Your task to perform on an android device: turn vacation reply on in the gmail app Image 0: 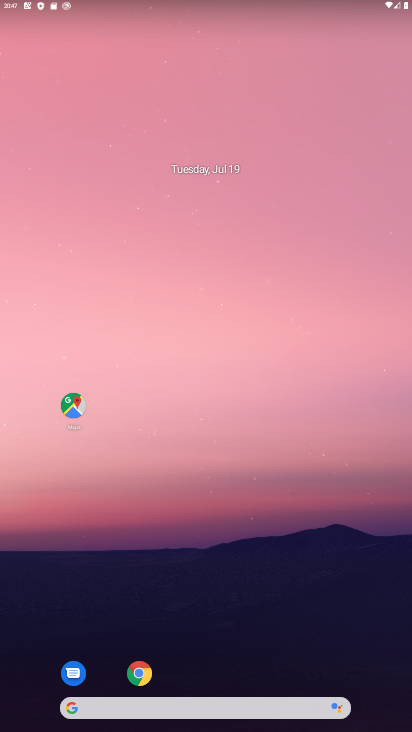
Step 0: drag from (210, 663) to (293, 2)
Your task to perform on an android device: turn vacation reply on in the gmail app Image 1: 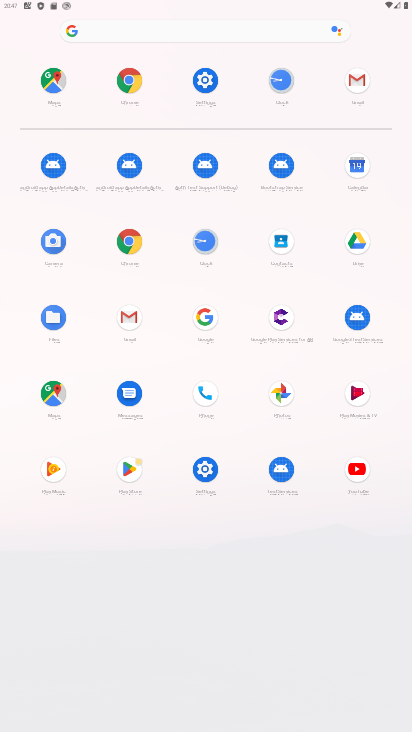
Step 1: click (133, 322)
Your task to perform on an android device: turn vacation reply on in the gmail app Image 2: 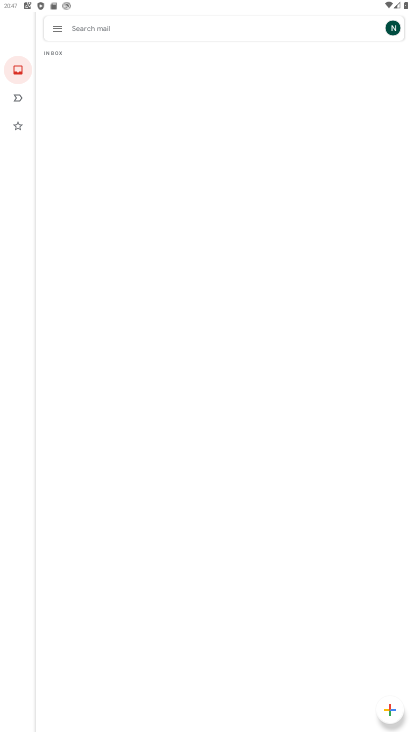
Step 2: click (62, 26)
Your task to perform on an android device: turn vacation reply on in the gmail app Image 3: 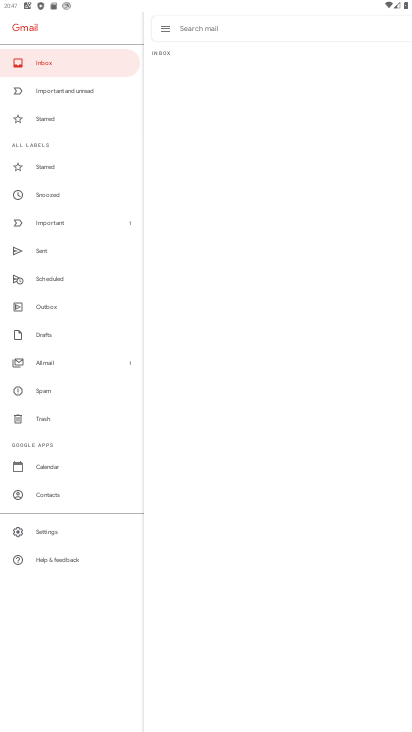
Step 3: click (55, 535)
Your task to perform on an android device: turn vacation reply on in the gmail app Image 4: 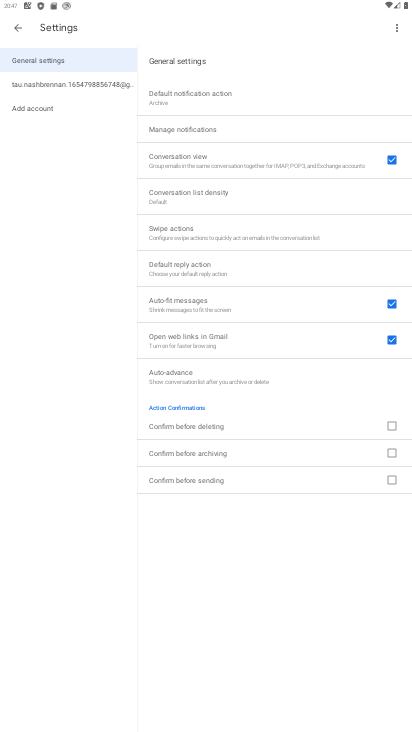
Step 4: click (102, 87)
Your task to perform on an android device: turn vacation reply on in the gmail app Image 5: 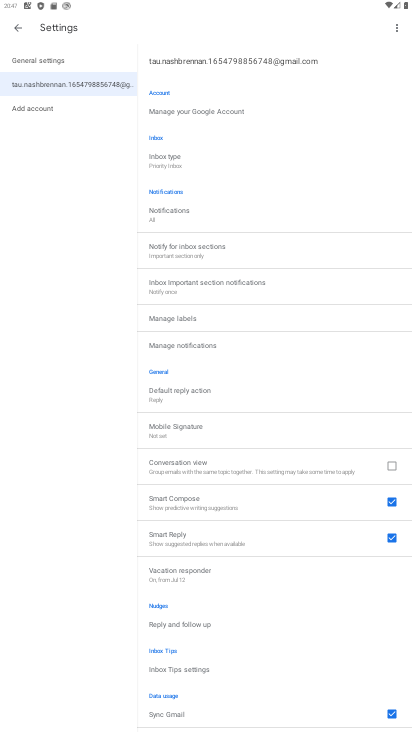
Step 5: drag from (209, 615) to (230, 504)
Your task to perform on an android device: turn vacation reply on in the gmail app Image 6: 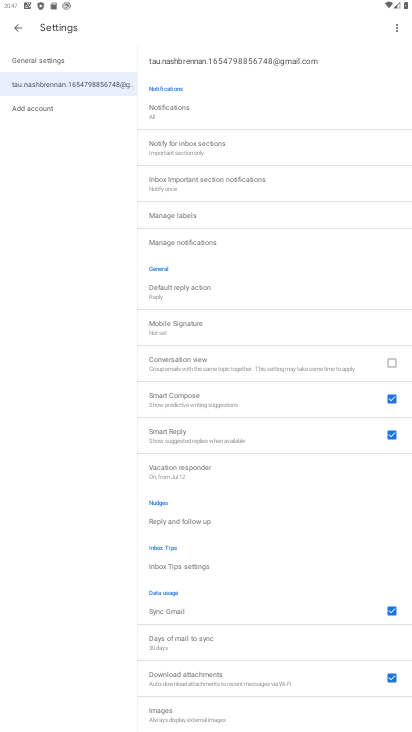
Step 6: click (205, 472)
Your task to perform on an android device: turn vacation reply on in the gmail app Image 7: 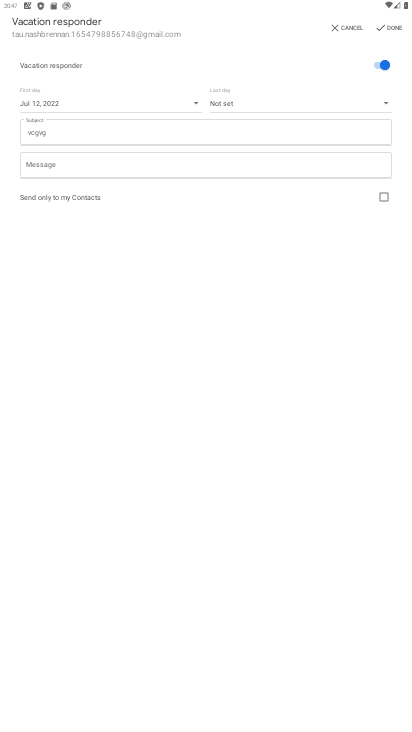
Step 7: task complete